Your task to perform on an android device: toggle javascript in the chrome app Image 0: 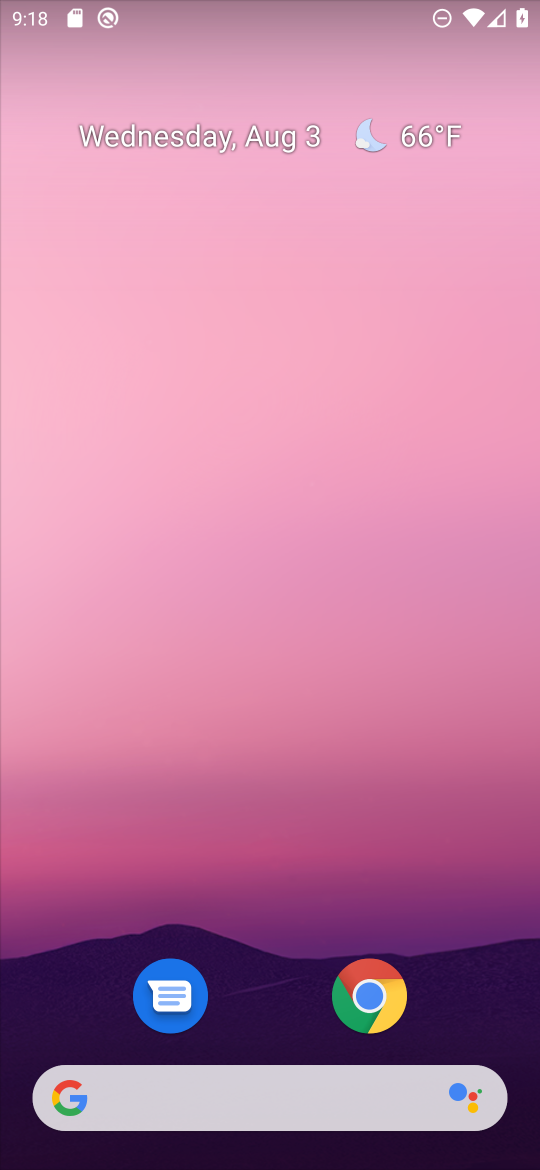
Step 0: click (377, 1004)
Your task to perform on an android device: toggle javascript in the chrome app Image 1: 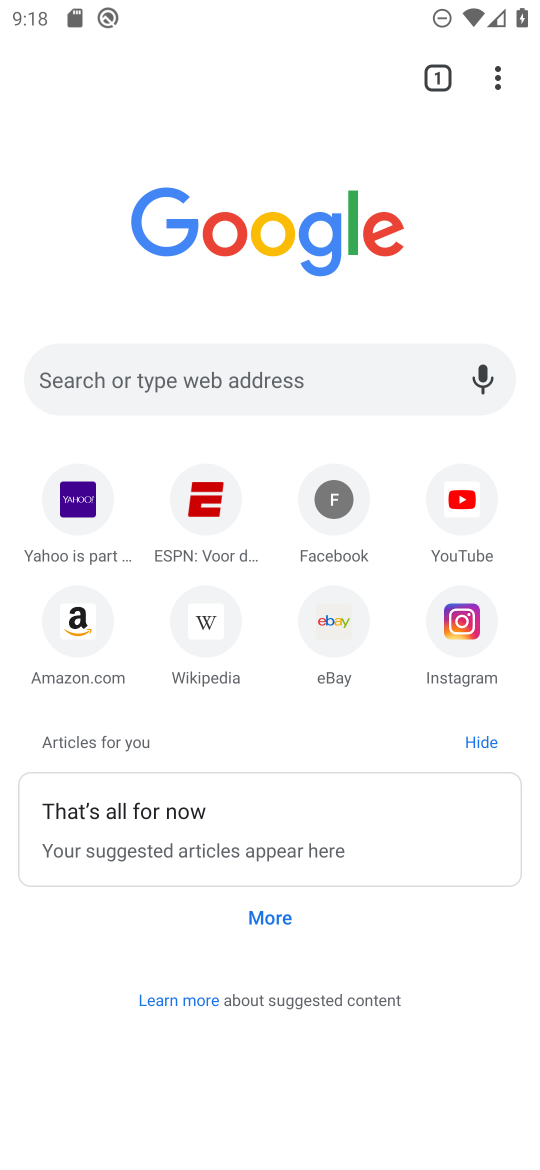
Step 1: click (496, 80)
Your task to perform on an android device: toggle javascript in the chrome app Image 2: 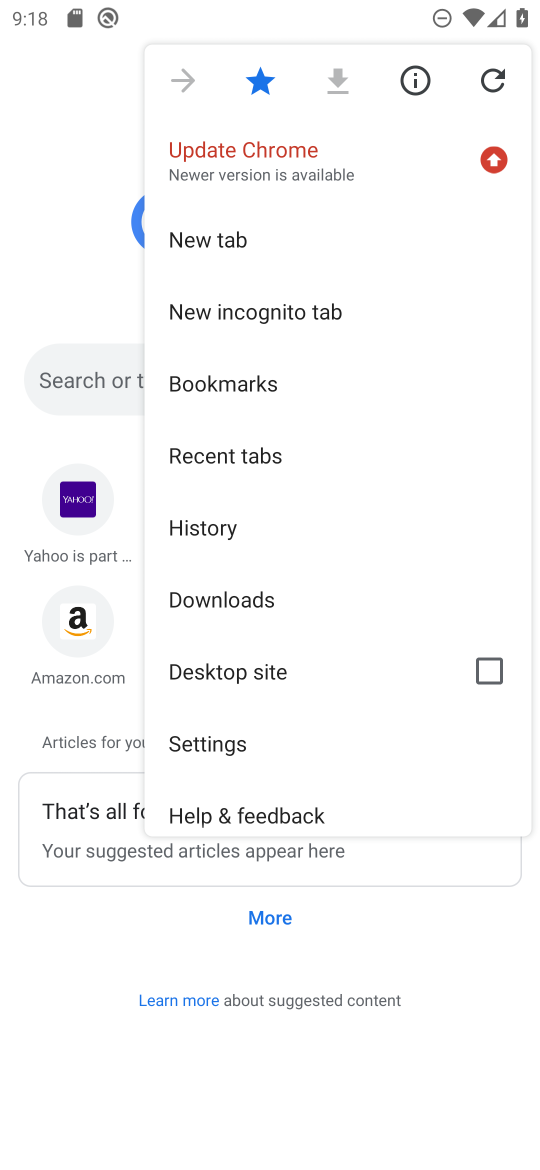
Step 2: click (256, 737)
Your task to perform on an android device: toggle javascript in the chrome app Image 3: 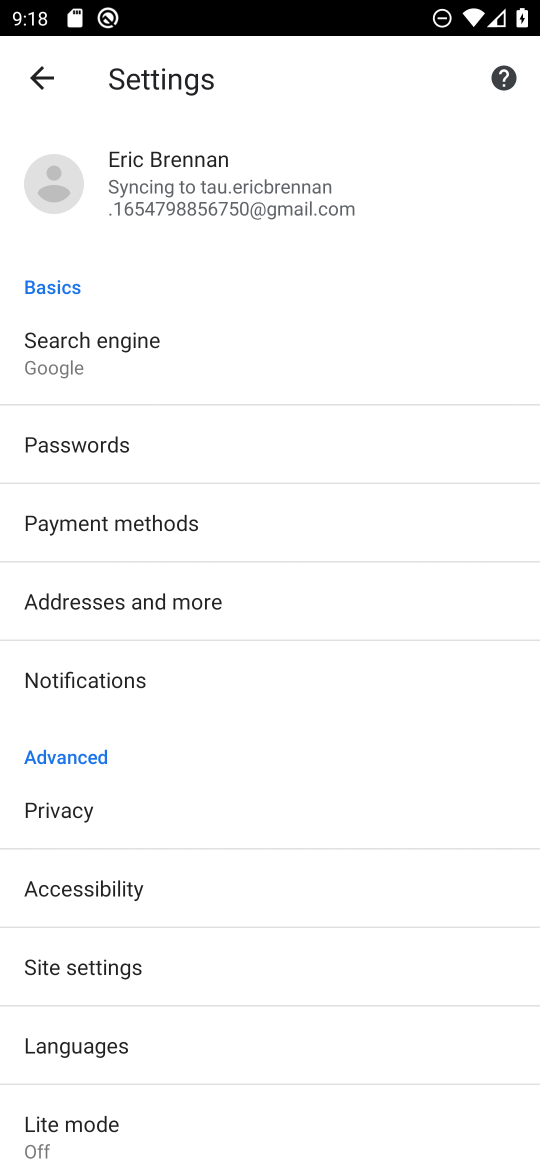
Step 3: click (229, 955)
Your task to perform on an android device: toggle javascript in the chrome app Image 4: 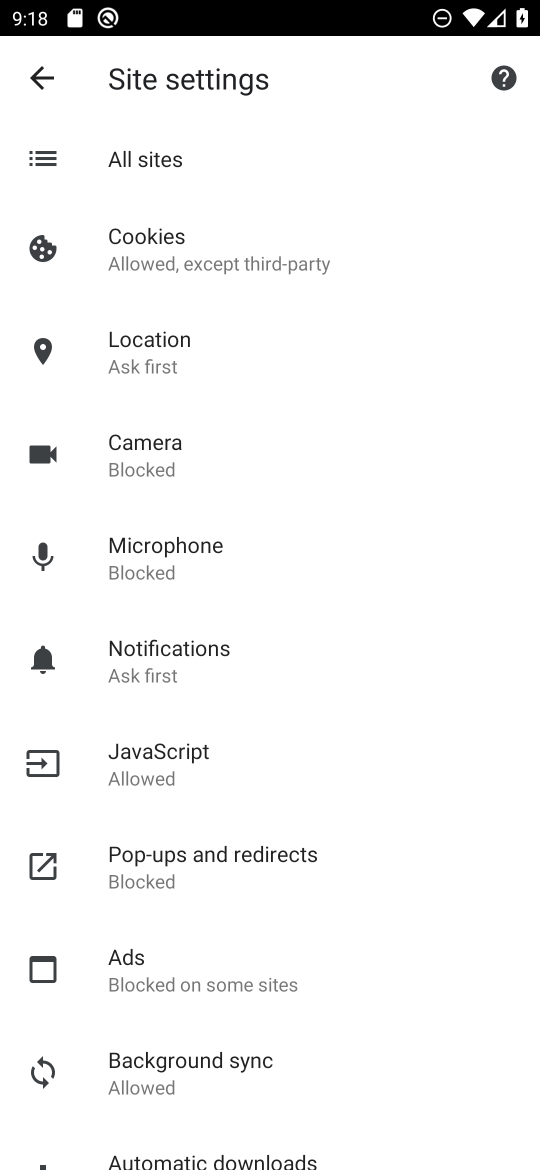
Step 4: drag from (340, 725) to (344, 256)
Your task to perform on an android device: toggle javascript in the chrome app Image 5: 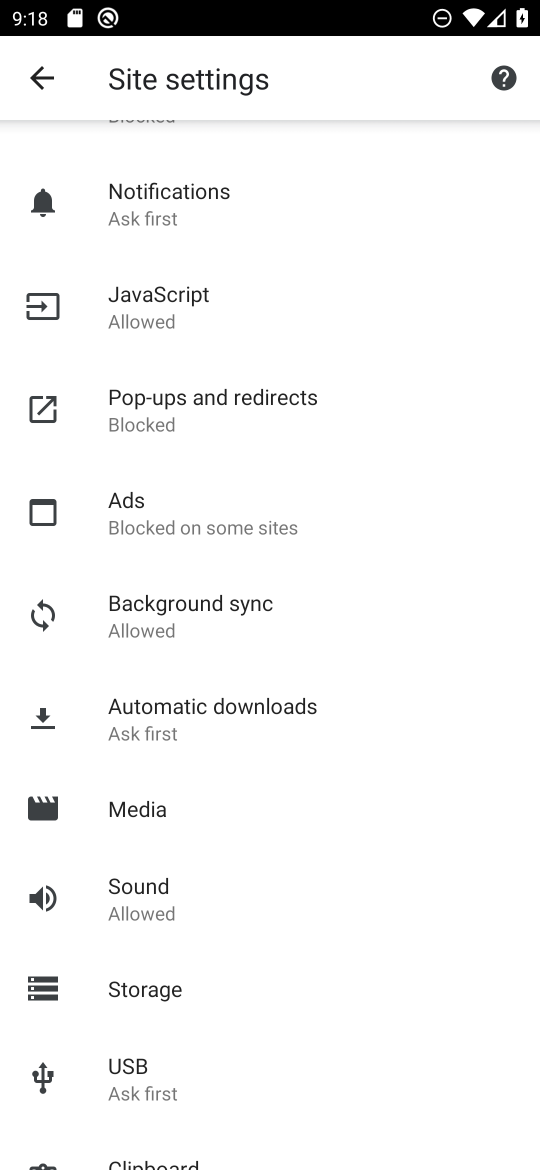
Step 5: click (231, 321)
Your task to perform on an android device: toggle javascript in the chrome app Image 6: 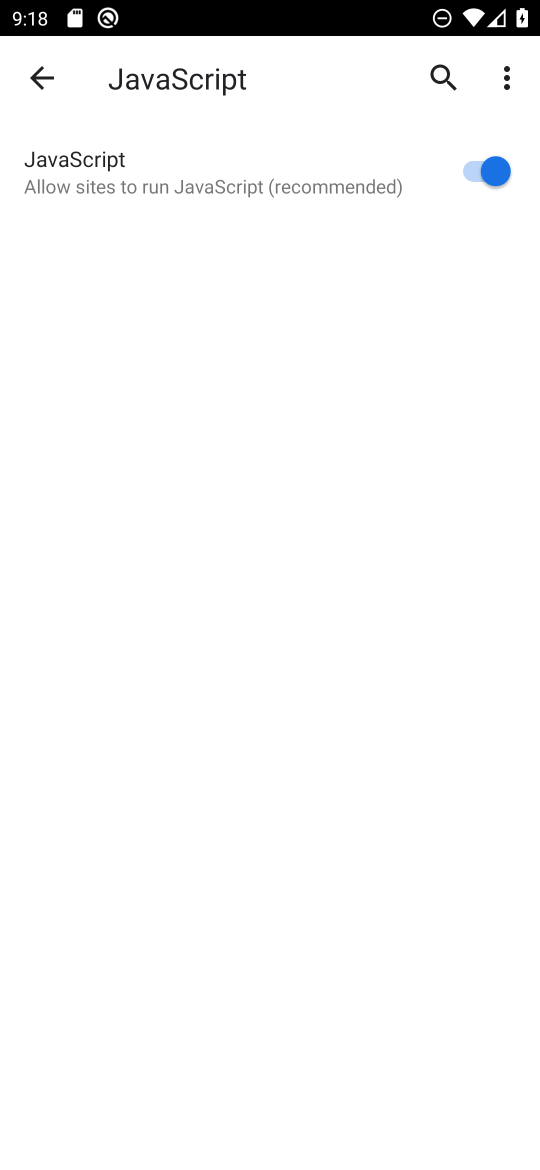
Step 6: click (479, 166)
Your task to perform on an android device: toggle javascript in the chrome app Image 7: 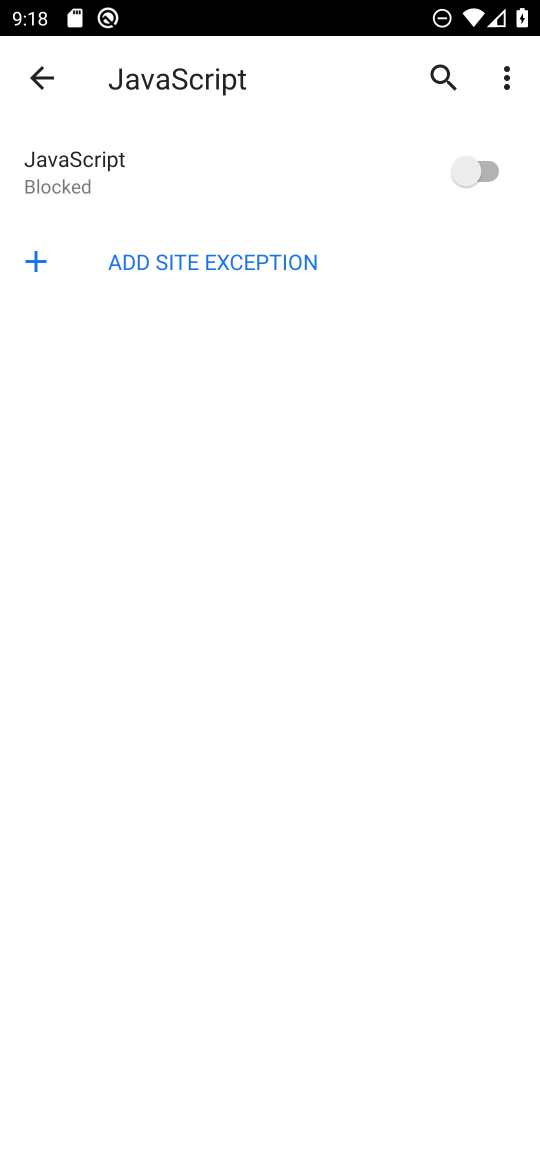
Step 7: task complete